Your task to perform on an android device: check battery use Image 0: 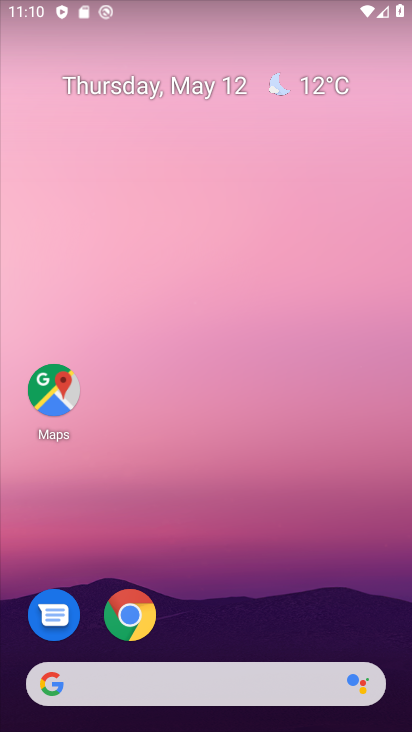
Step 0: drag from (195, 626) to (200, 168)
Your task to perform on an android device: check battery use Image 1: 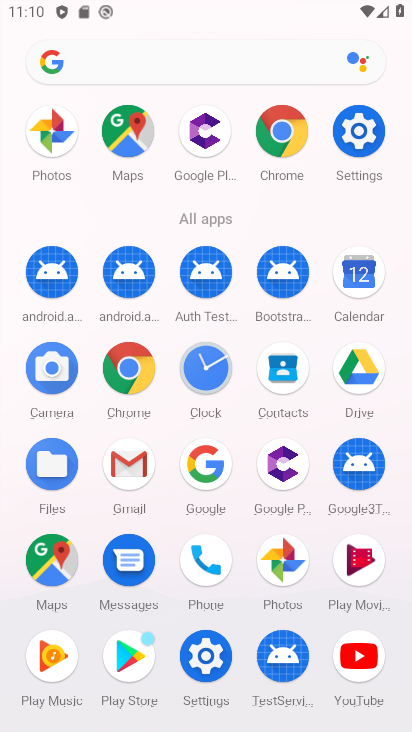
Step 1: click (358, 141)
Your task to perform on an android device: check battery use Image 2: 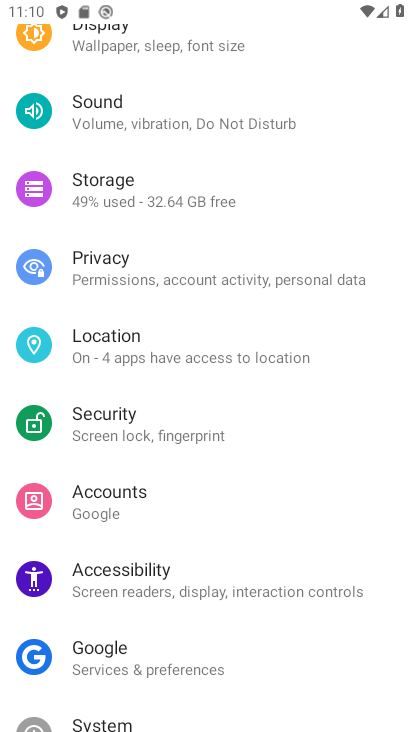
Step 2: drag from (220, 230) to (219, 478)
Your task to perform on an android device: check battery use Image 3: 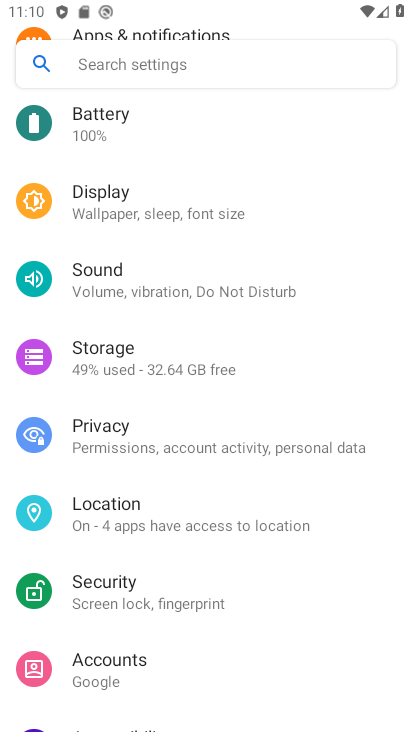
Step 3: click (137, 140)
Your task to perform on an android device: check battery use Image 4: 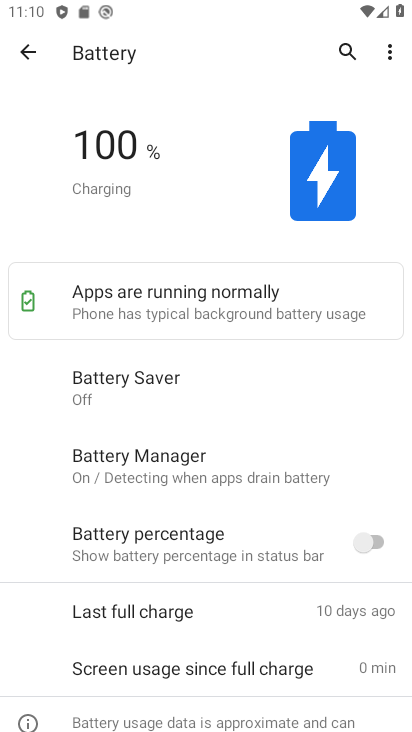
Step 4: drag from (252, 575) to (253, 352)
Your task to perform on an android device: check battery use Image 5: 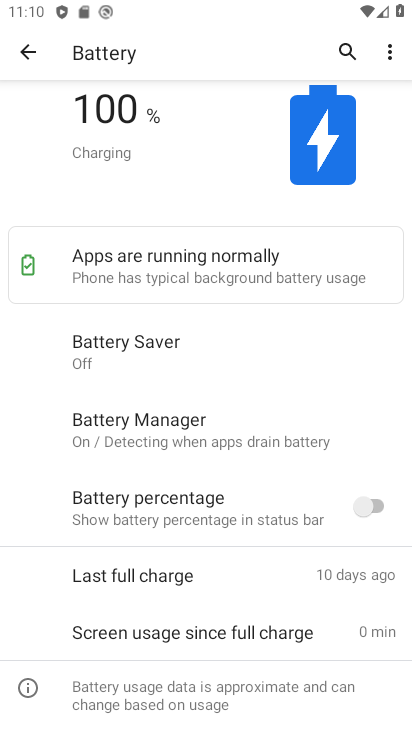
Step 5: click (392, 49)
Your task to perform on an android device: check battery use Image 6: 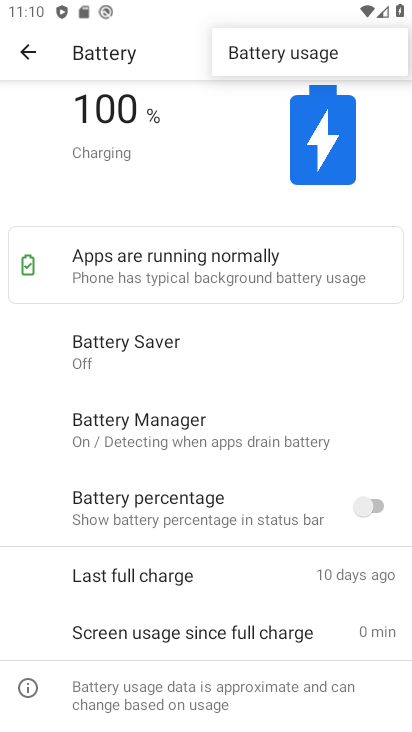
Step 6: click (308, 45)
Your task to perform on an android device: check battery use Image 7: 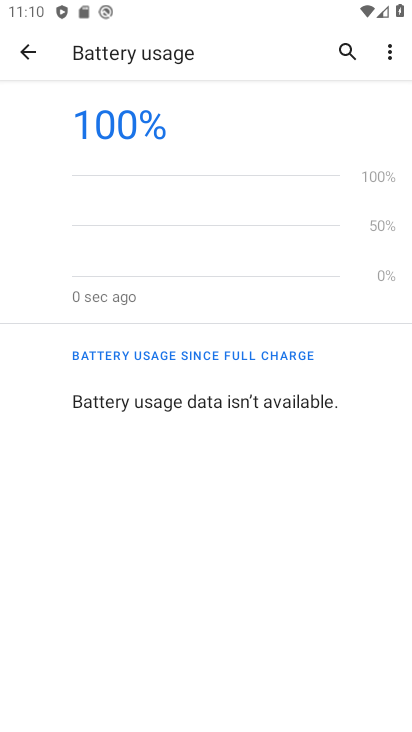
Step 7: task complete